Your task to perform on an android device: Add apple airpods pro to the cart on newegg, then select checkout. Image 0: 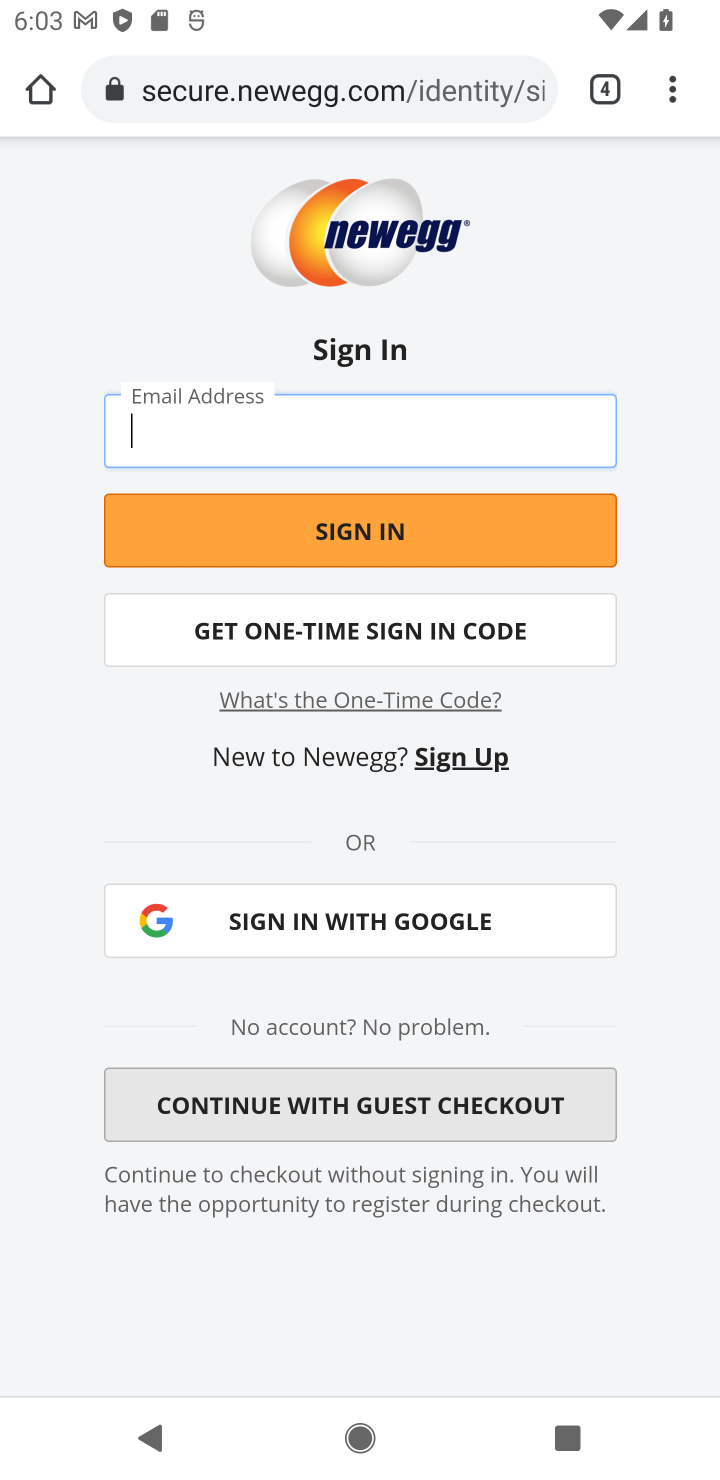
Step 0: press back button
Your task to perform on an android device: Add apple airpods pro to the cart on newegg, then select checkout. Image 1: 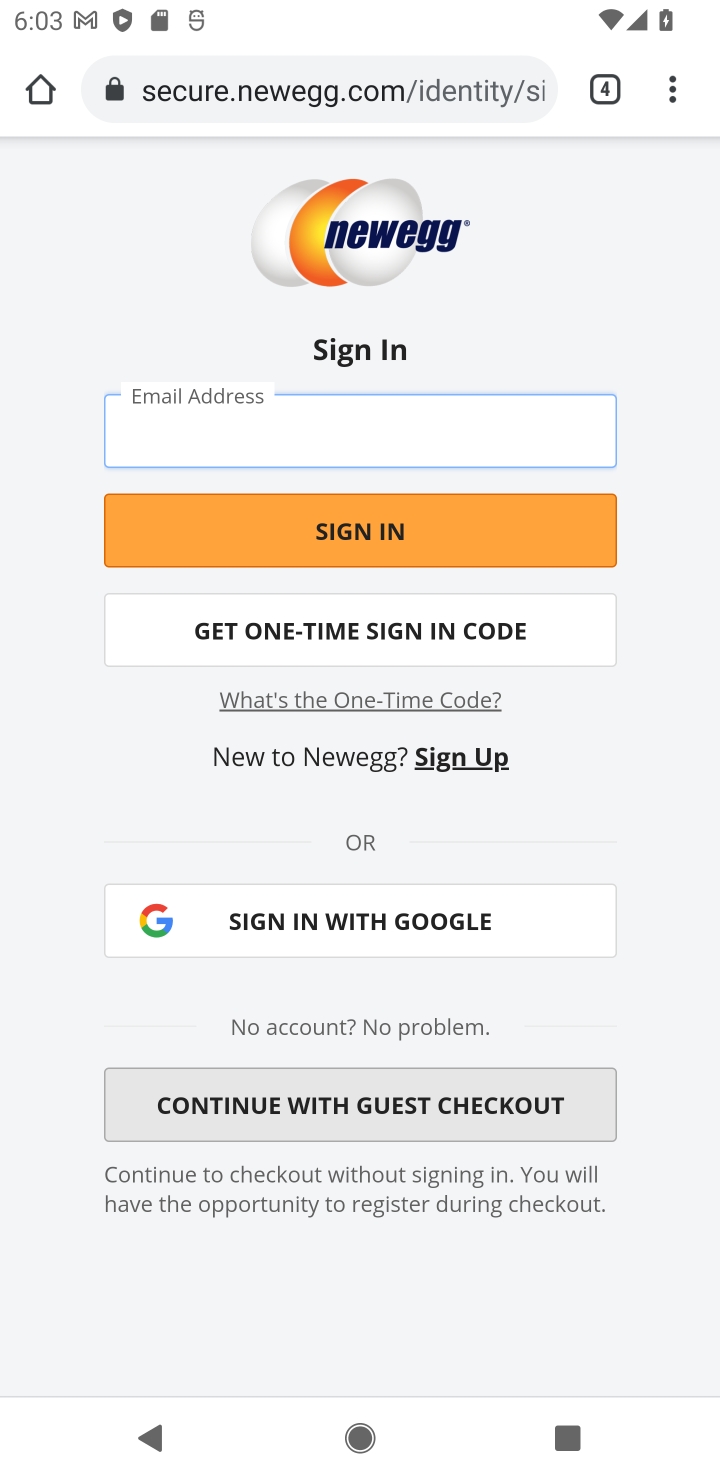
Step 1: press back button
Your task to perform on an android device: Add apple airpods pro to the cart on newegg, then select checkout. Image 2: 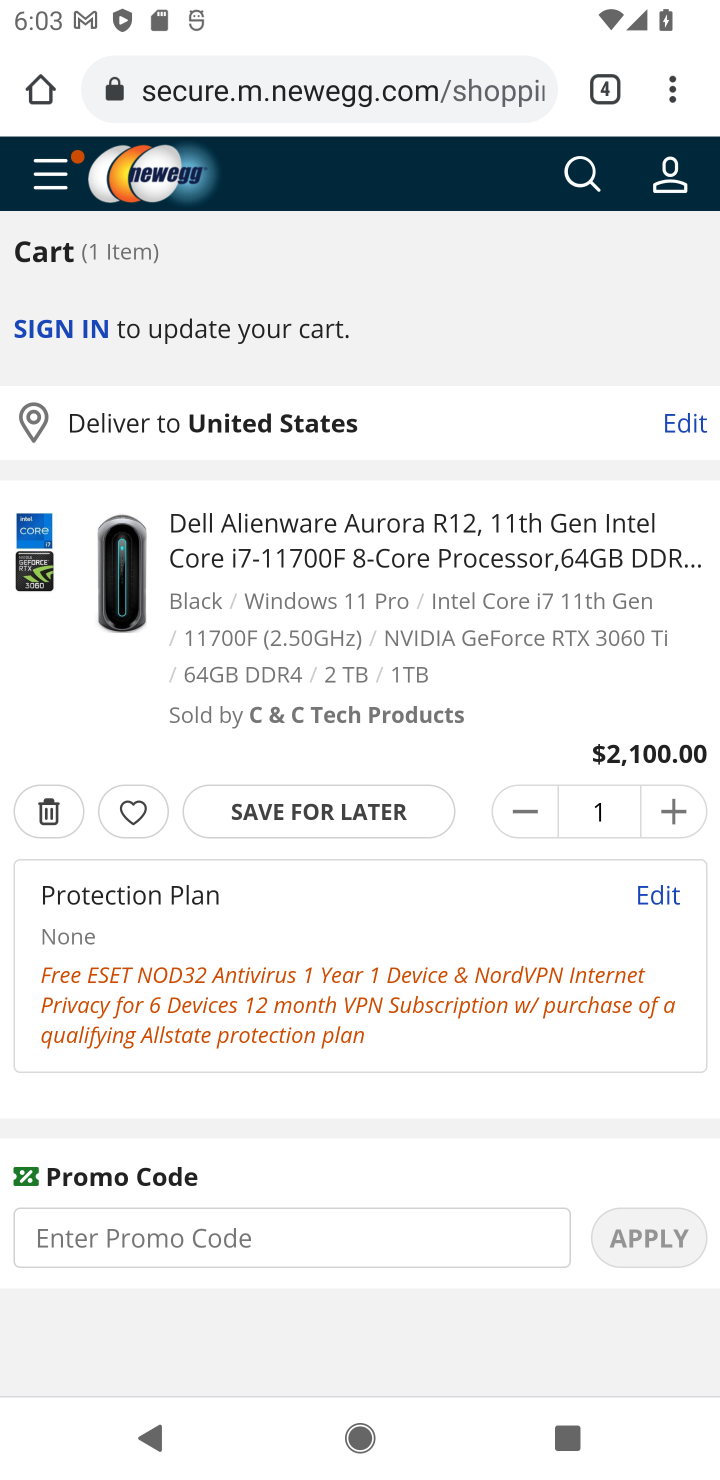
Step 2: click (581, 172)
Your task to perform on an android device: Add apple airpods pro to the cart on newegg, then select checkout. Image 3: 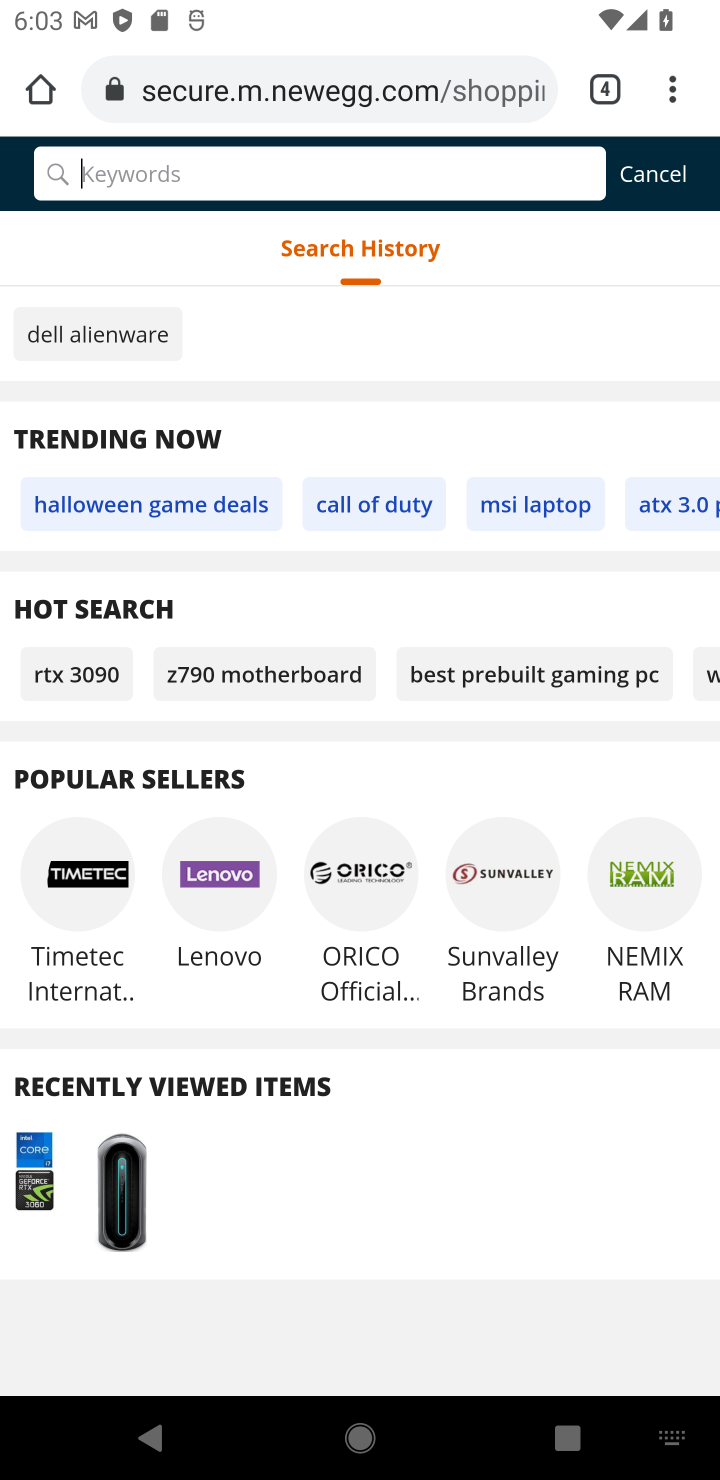
Step 3: type "apple airpods pro"
Your task to perform on an android device: Add apple airpods pro to the cart on newegg, then select checkout. Image 4: 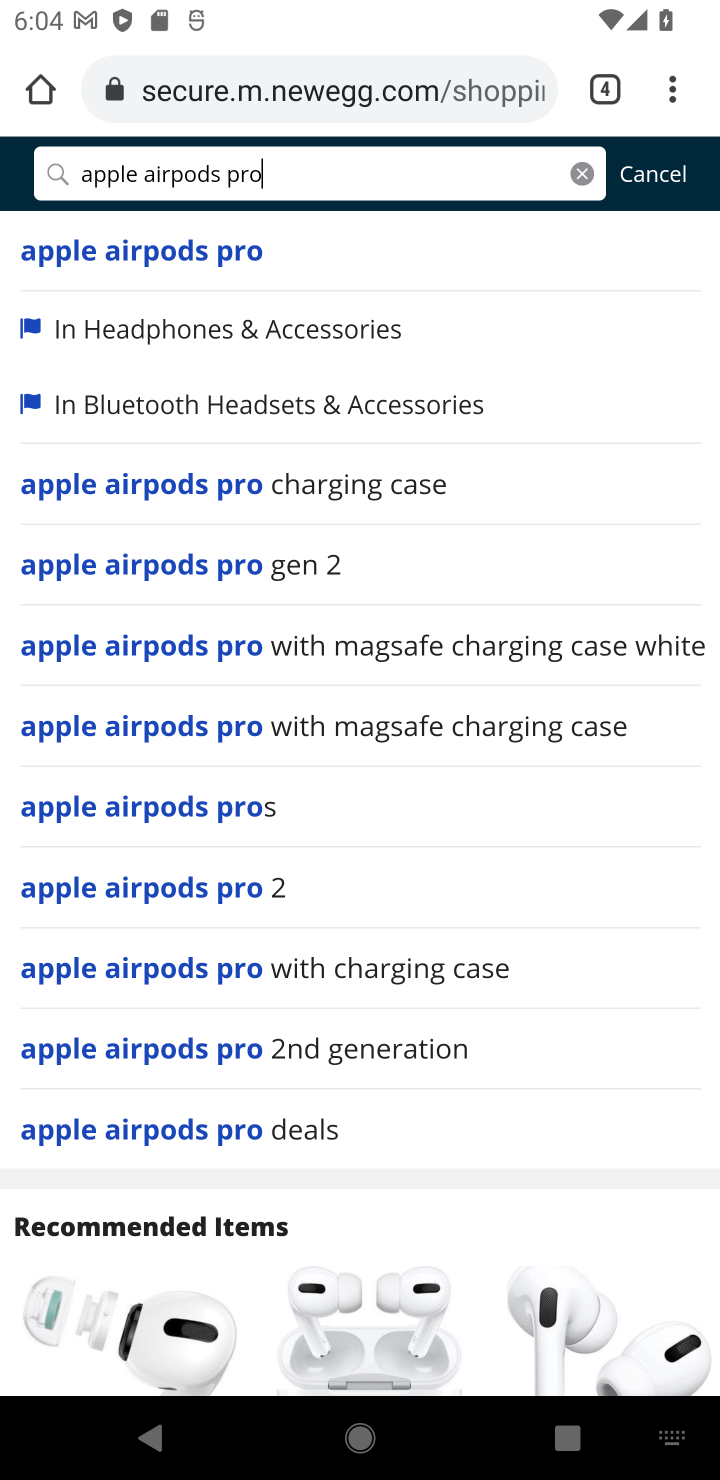
Step 4: click (260, 321)
Your task to perform on an android device: Add apple airpods pro to the cart on newegg, then select checkout. Image 5: 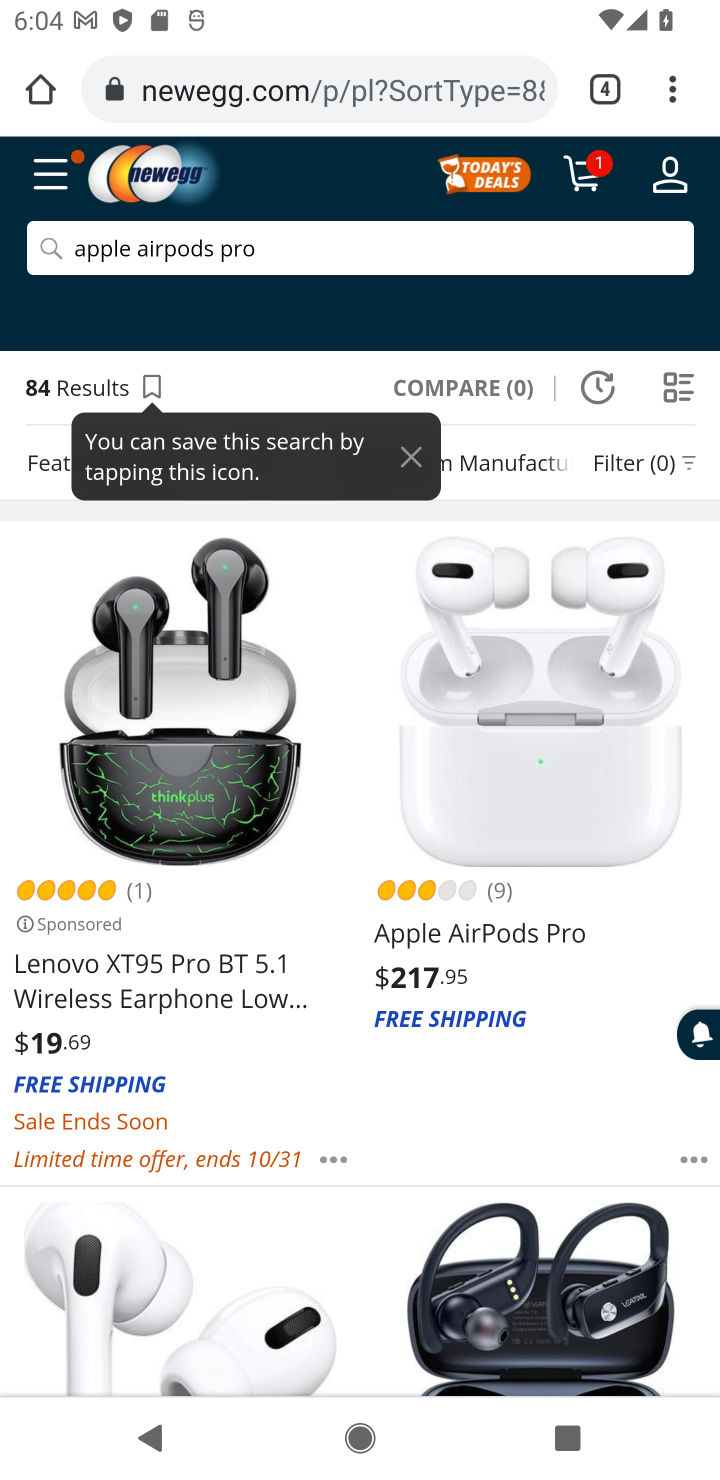
Step 5: click (428, 939)
Your task to perform on an android device: Add apple airpods pro to the cart on newegg, then select checkout. Image 6: 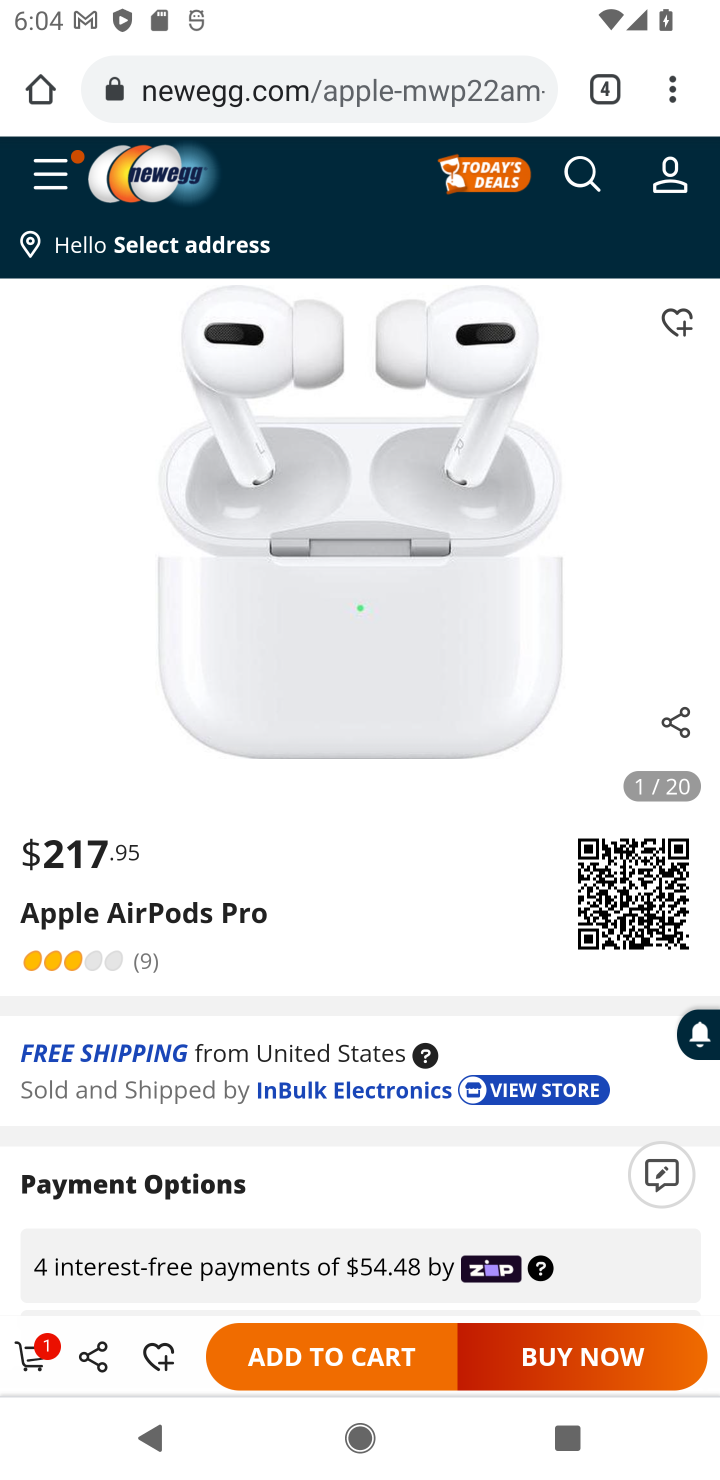
Step 6: click (297, 1340)
Your task to perform on an android device: Add apple airpods pro to the cart on newegg, then select checkout. Image 7: 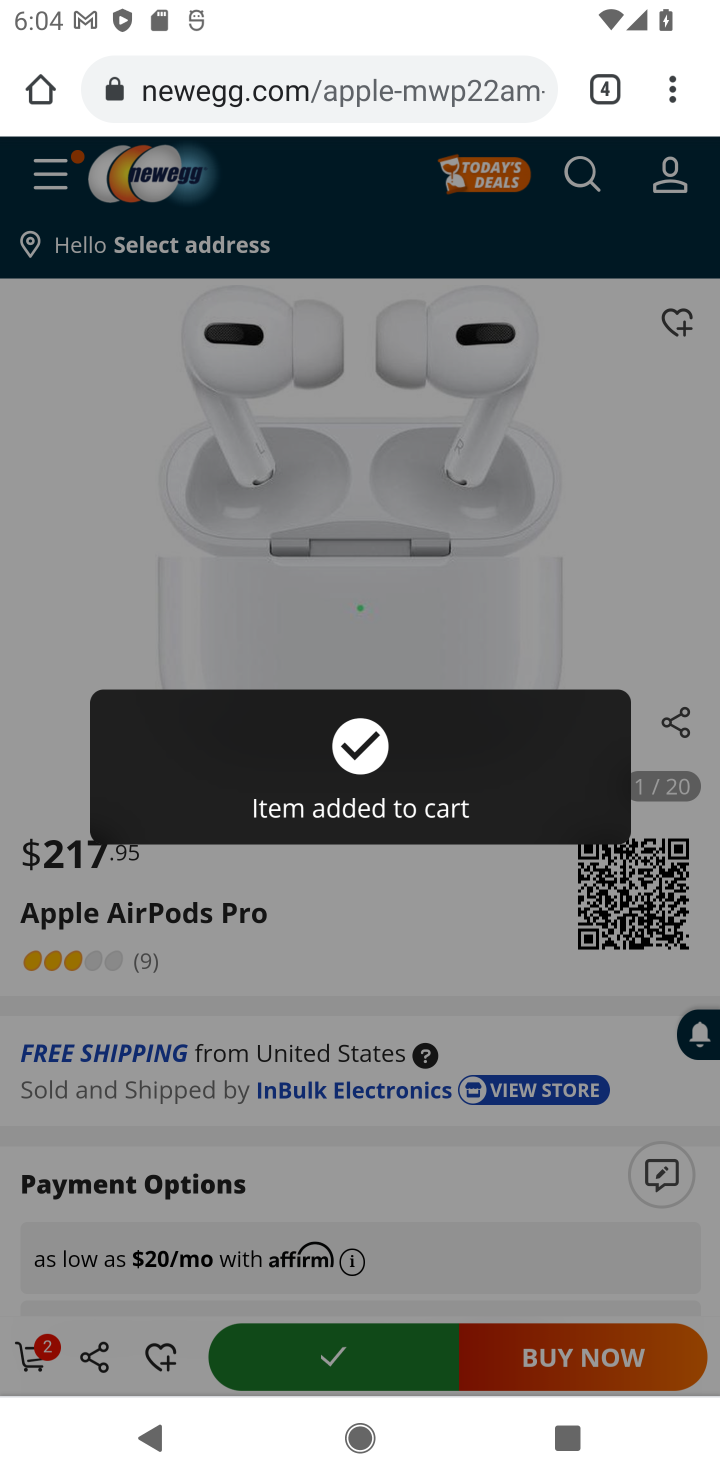
Step 7: click (39, 1354)
Your task to perform on an android device: Add apple airpods pro to the cart on newegg, then select checkout. Image 8: 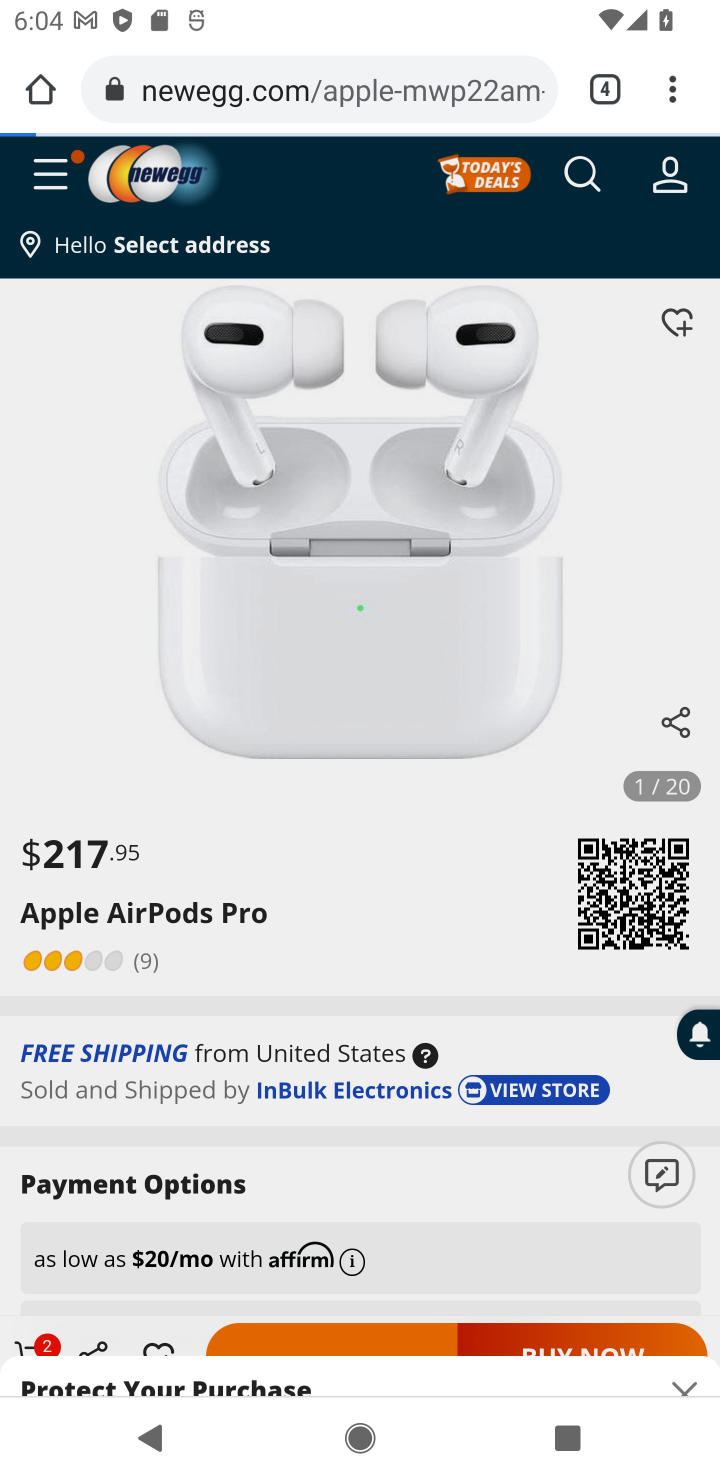
Step 8: click (39, 1354)
Your task to perform on an android device: Add apple airpods pro to the cart on newegg, then select checkout. Image 9: 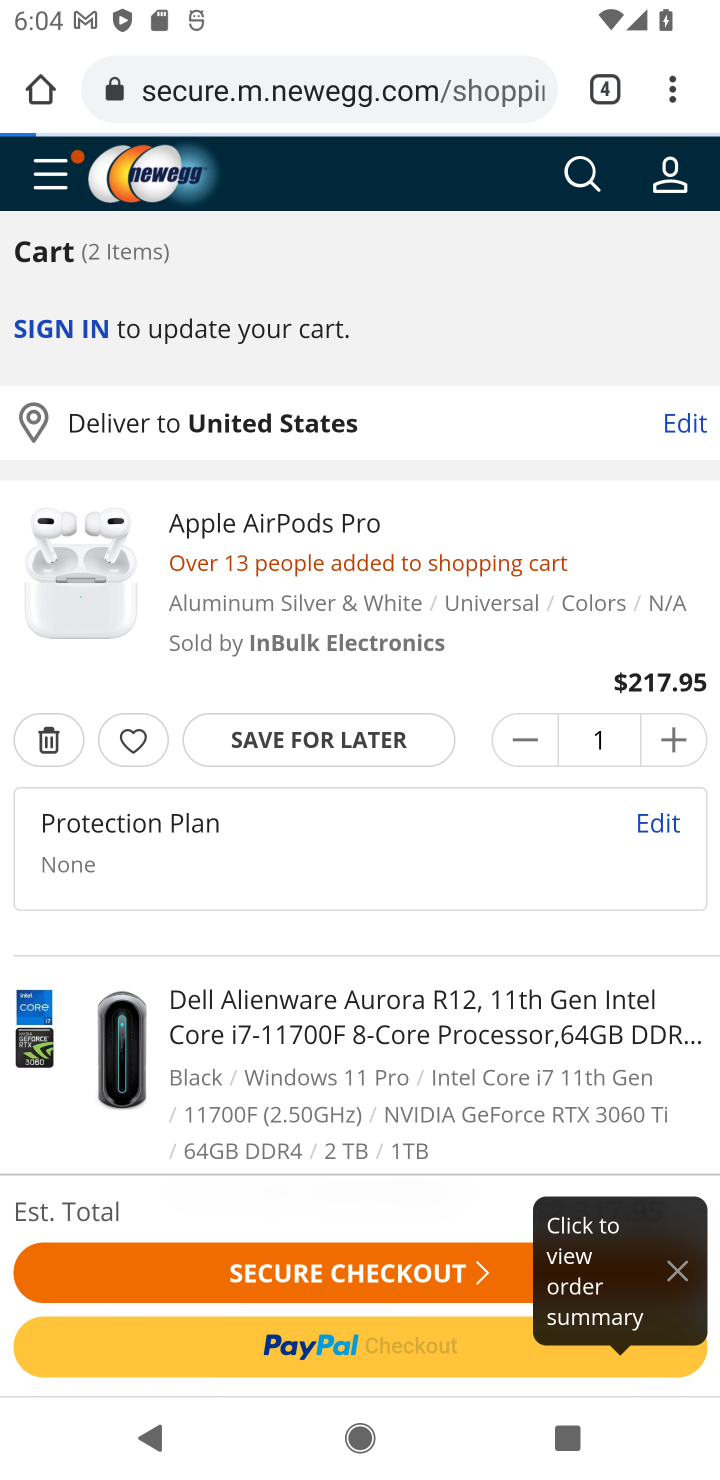
Step 9: click (313, 1264)
Your task to perform on an android device: Add apple airpods pro to the cart on newegg, then select checkout. Image 10: 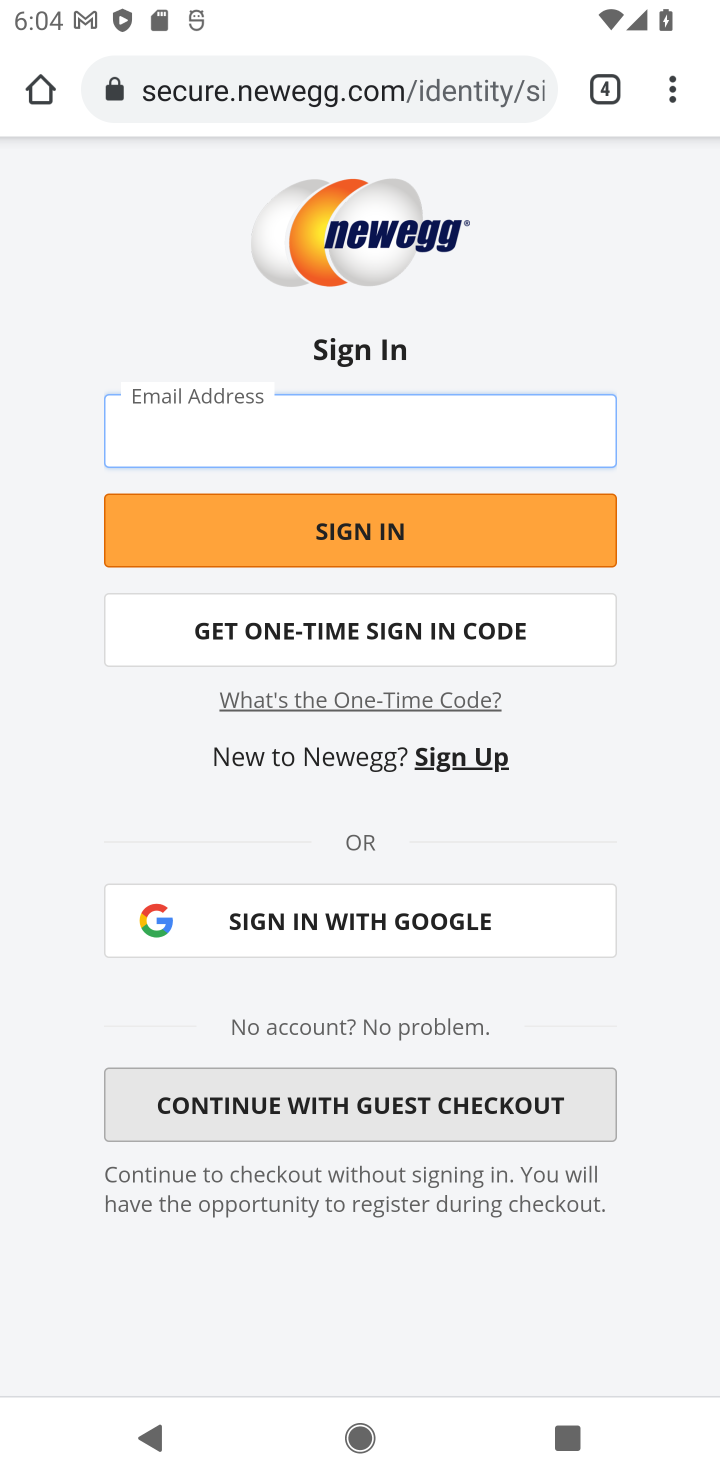
Step 10: task complete